Your task to perform on an android device: uninstall "Google Keep" Image 0: 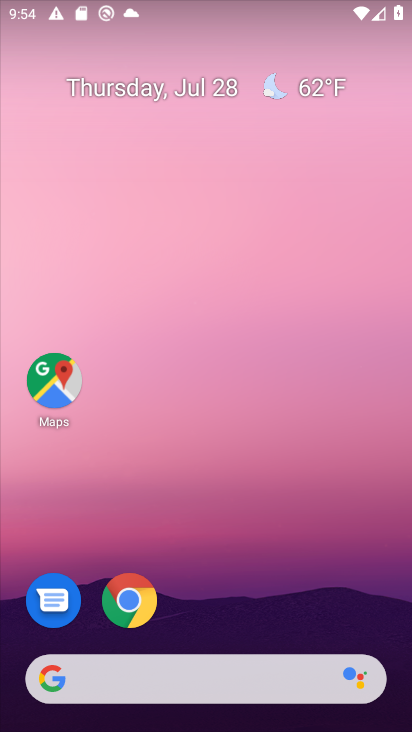
Step 0: drag from (241, 633) to (276, 17)
Your task to perform on an android device: uninstall "Google Keep" Image 1: 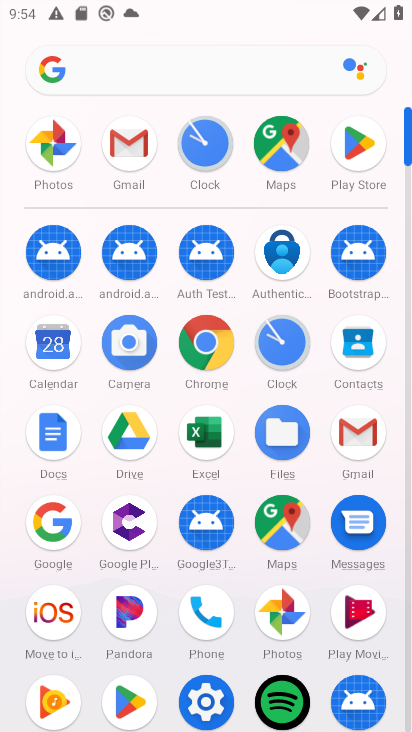
Step 1: click (362, 161)
Your task to perform on an android device: uninstall "Google Keep" Image 2: 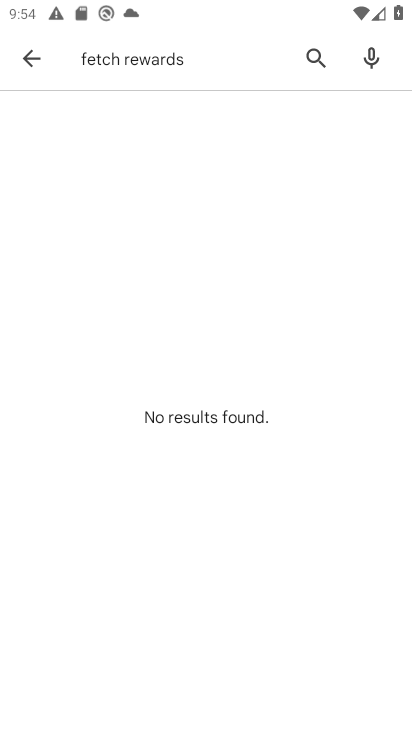
Step 2: click (314, 61)
Your task to perform on an android device: uninstall "Google Keep" Image 3: 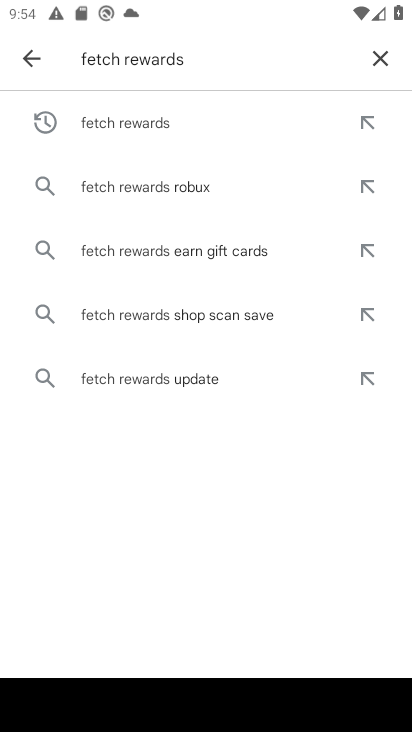
Step 3: click (388, 56)
Your task to perform on an android device: uninstall "Google Keep" Image 4: 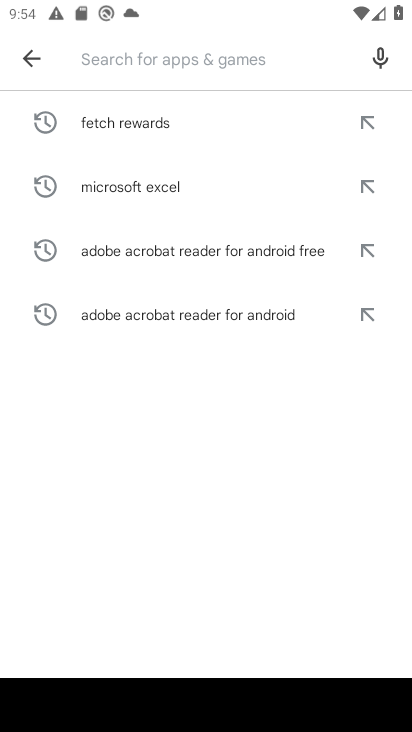
Step 4: type "Google Keep"
Your task to perform on an android device: uninstall "Google Keep" Image 5: 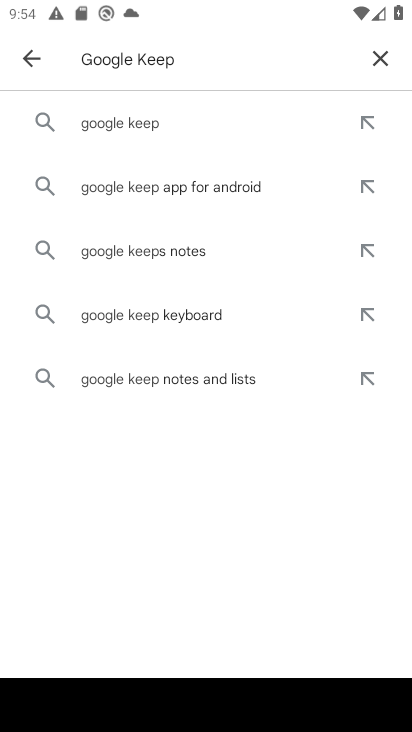
Step 5: click (116, 124)
Your task to perform on an android device: uninstall "Google Keep" Image 6: 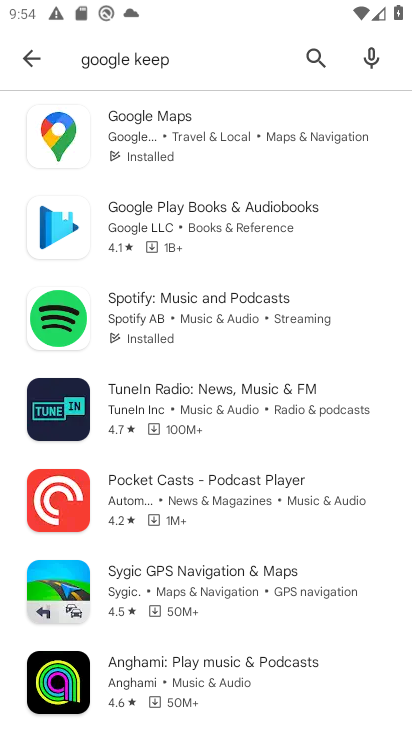
Step 6: task complete